Your task to perform on an android device: turn off javascript in the chrome app Image 0: 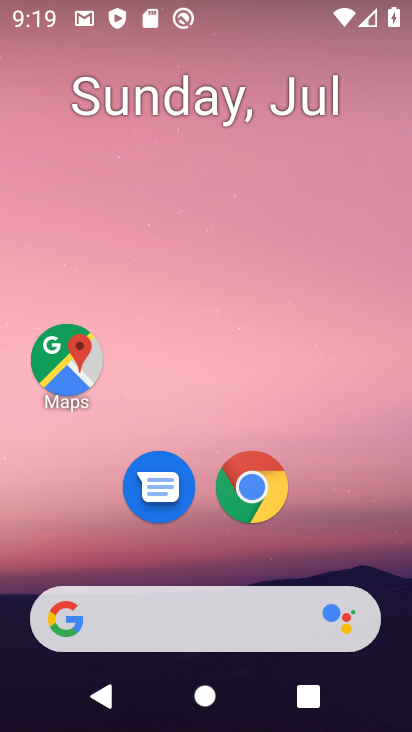
Step 0: click (246, 498)
Your task to perform on an android device: turn off javascript in the chrome app Image 1: 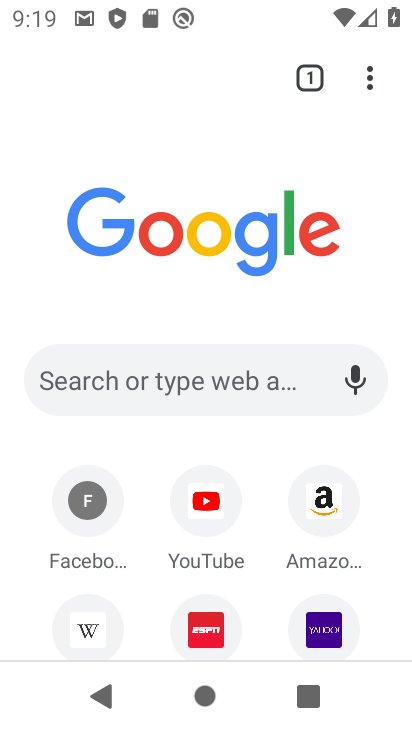
Step 1: drag from (359, 71) to (153, 542)
Your task to perform on an android device: turn off javascript in the chrome app Image 2: 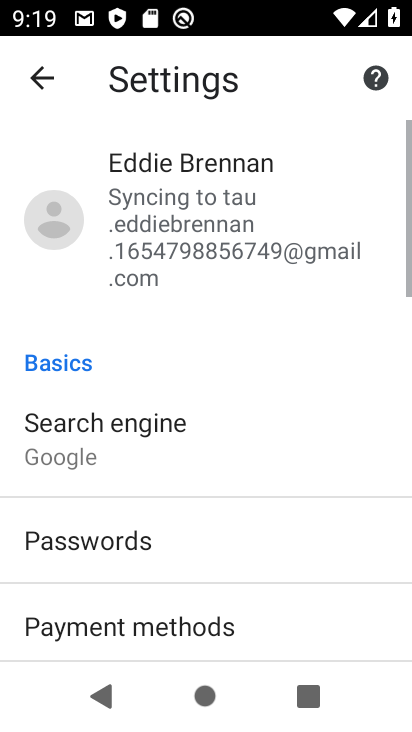
Step 2: drag from (152, 558) to (244, 111)
Your task to perform on an android device: turn off javascript in the chrome app Image 3: 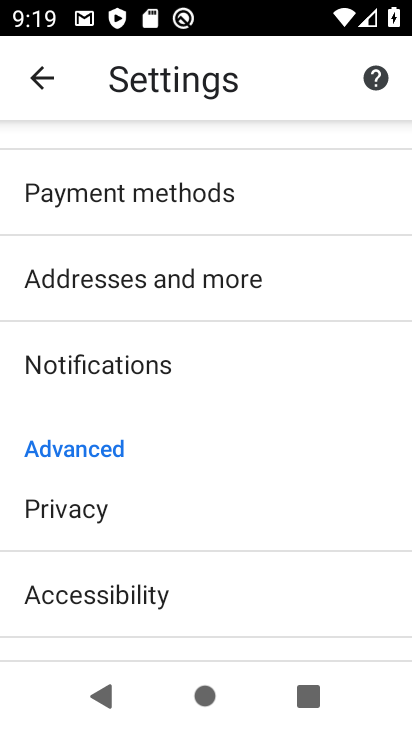
Step 3: drag from (142, 601) to (274, 134)
Your task to perform on an android device: turn off javascript in the chrome app Image 4: 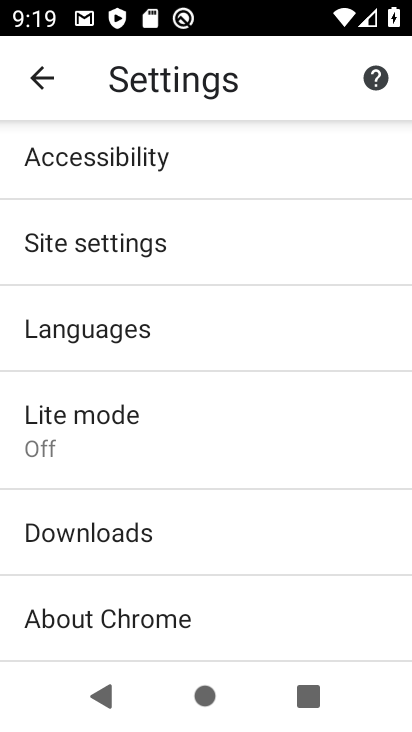
Step 4: click (80, 222)
Your task to perform on an android device: turn off javascript in the chrome app Image 5: 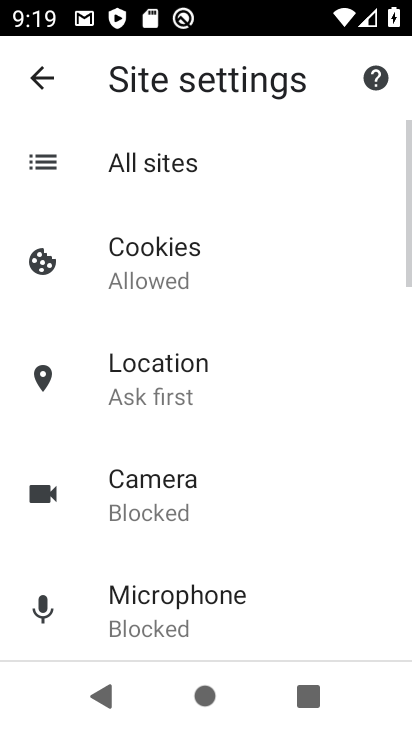
Step 5: drag from (237, 631) to (370, 119)
Your task to perform on an android device: turn off javascript in the chrome app Image 6: 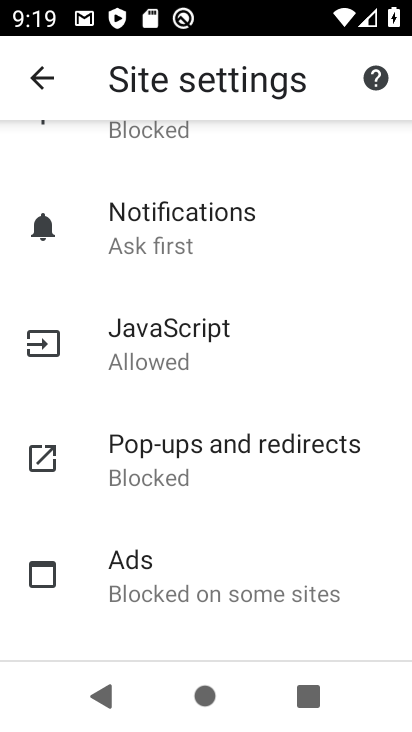
Step 6: click (187, 329)
Your task to perform on an android device: turn off javascript in the chrome app Image 7: 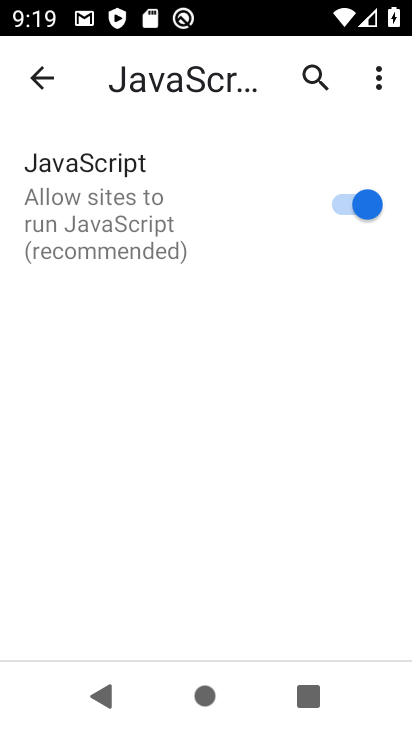
Step 7: click (362, 191)
Your task to perform on an android device: turn off javascript in the chrome app Image 8: 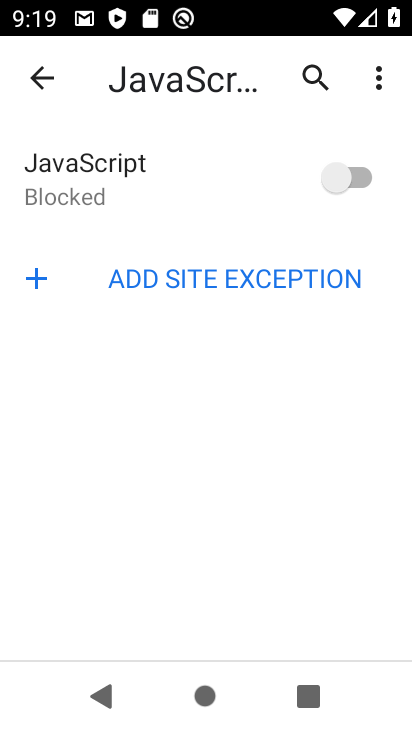
Step 8: task complete